Your task to perform on an android device: Open accessibility settings Image 0: 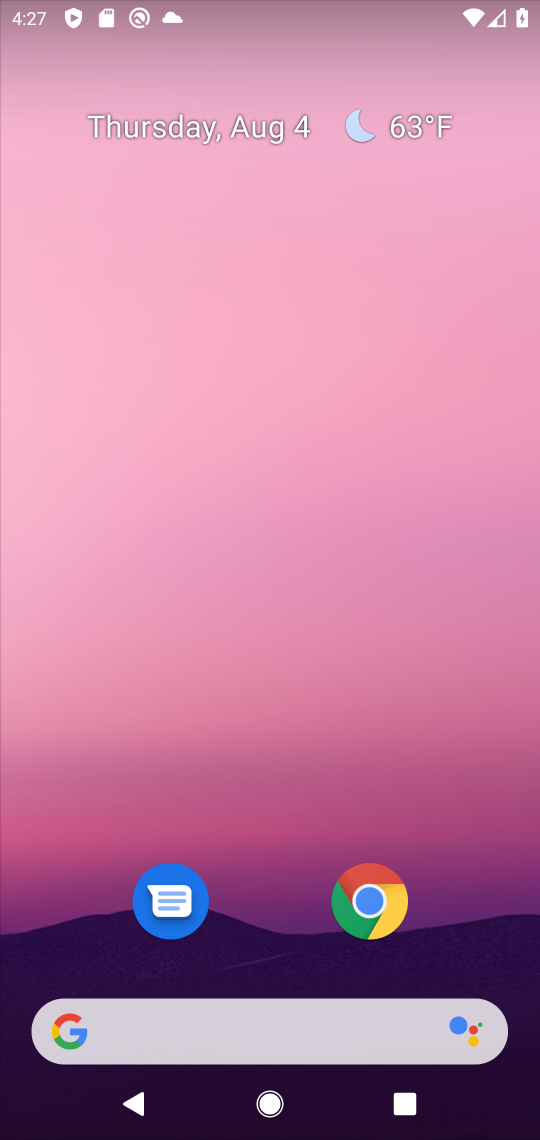
Step 0: drag from (290, 913) to (398, 50)
Your task to perform on an android device: Open accessibility settings Image 1: 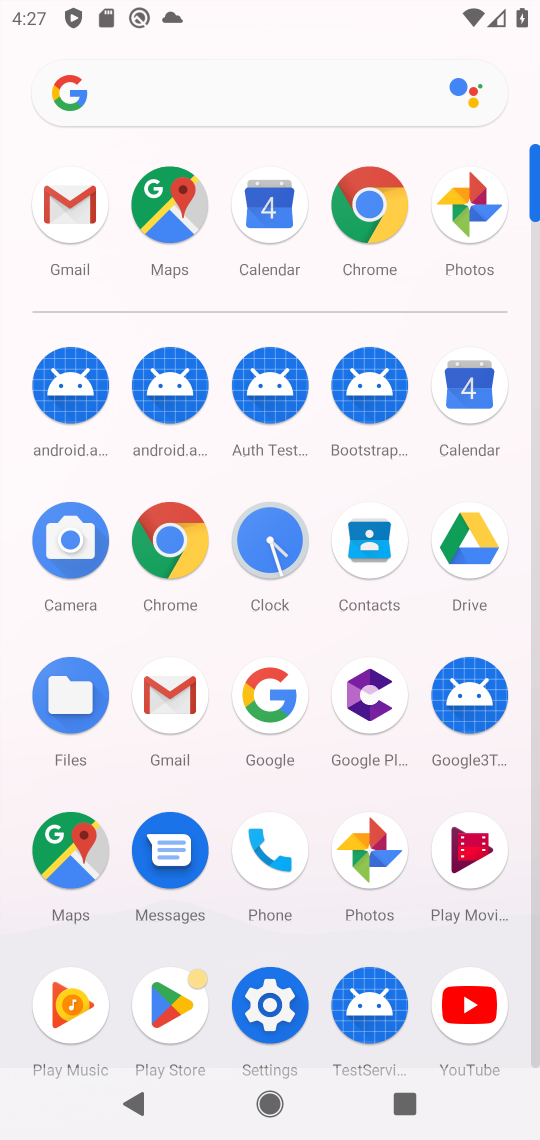
Step 1: click (261, 997)
Your task to perform on an android device: Open accessibility settings Image 2: 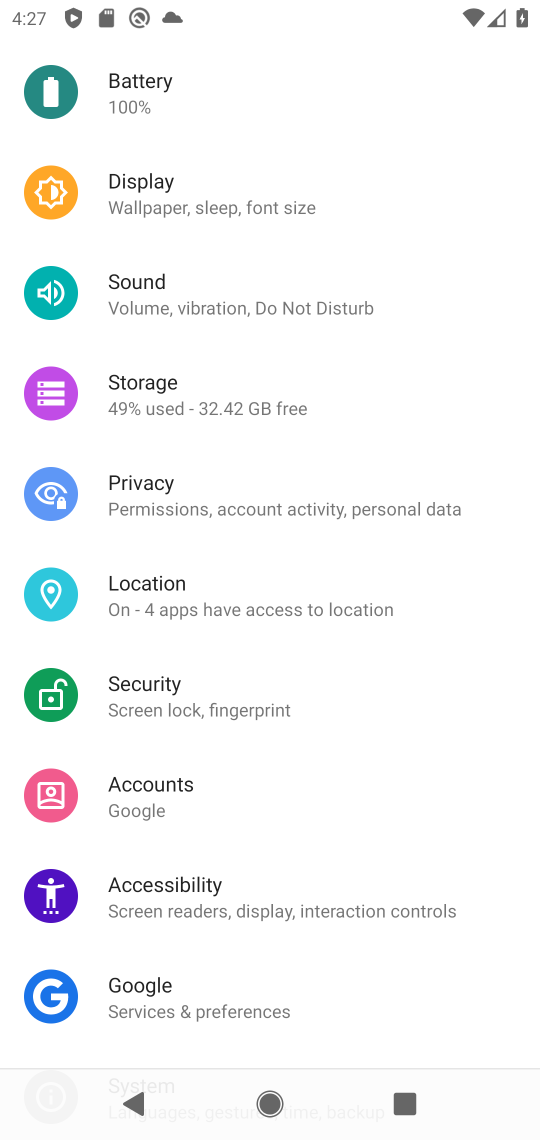
Step 2: click (478, 1108)
Your task to perform on an android device: Open accessibility settings Image 3: 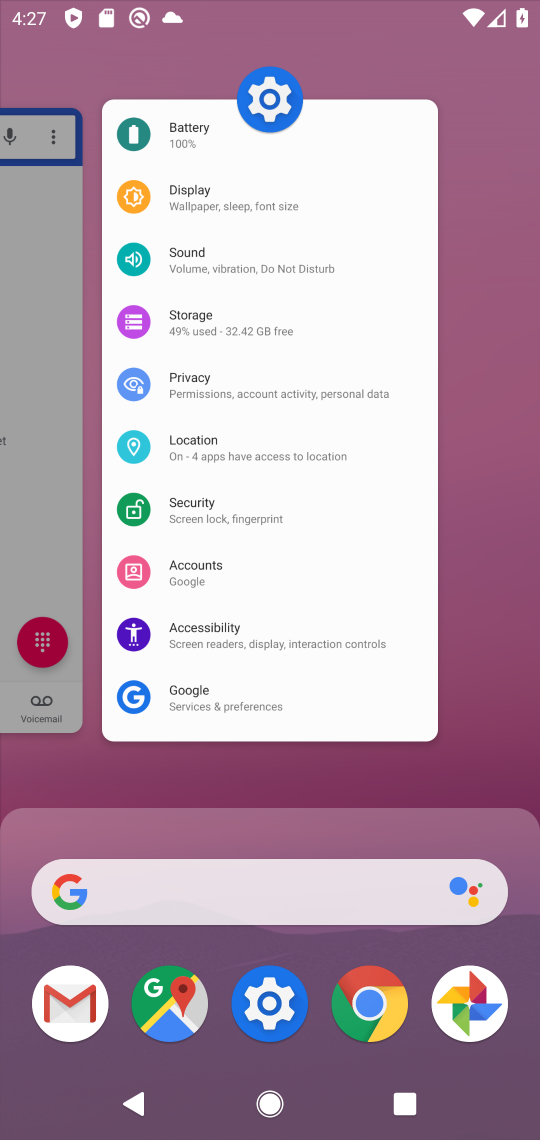
Step 3: click (136, 883)
Your task to perform on an android device: Open accessibility settings Image 4: 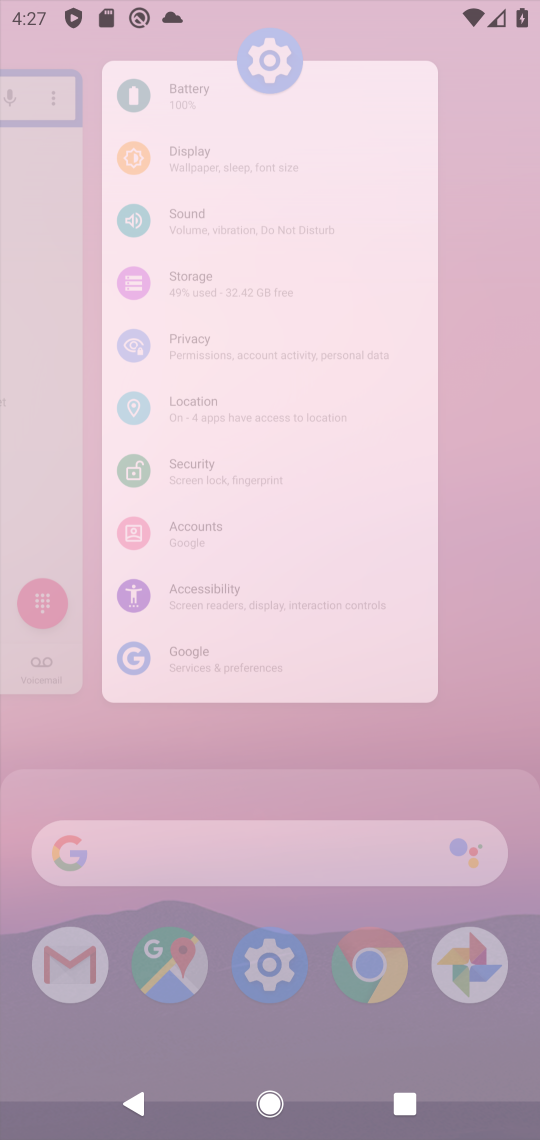
Step 4: click (293, 581)
Your task to perform on an android device: Open accessibility settings Image 5: 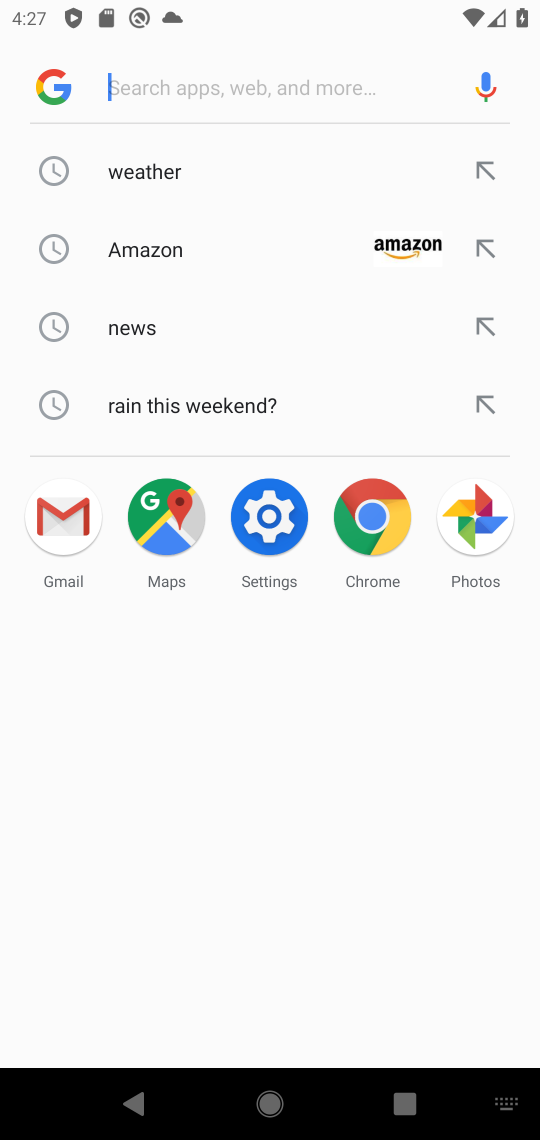
Step 5: press home button
Your task to perform on an android device: Open accessibility settings Image 6: 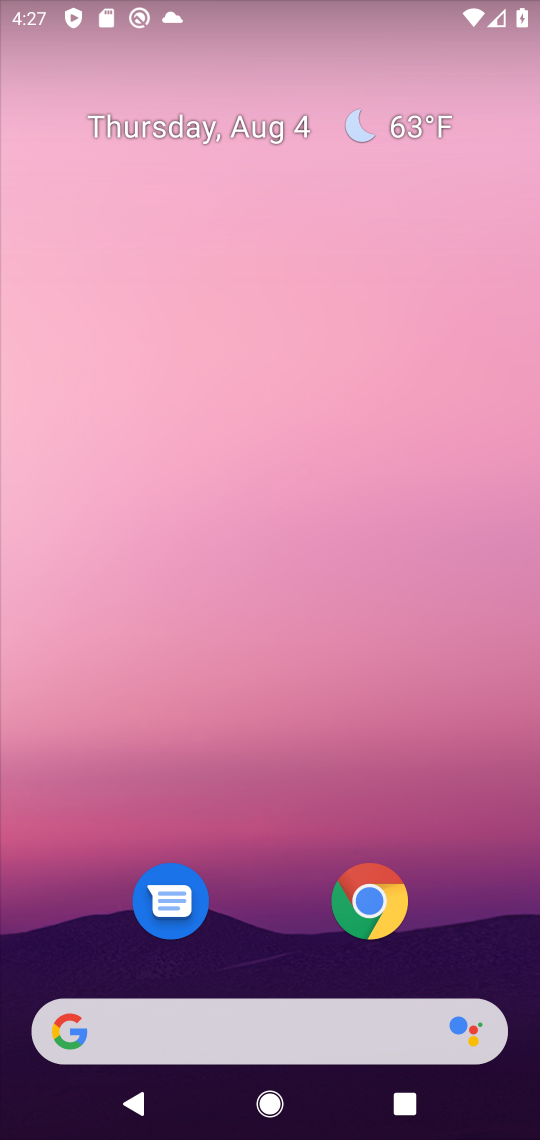
Step 6: drag from (296, 758) to (288, 47)
Your task to perform on an android device: Open accessibility settings Image 7: 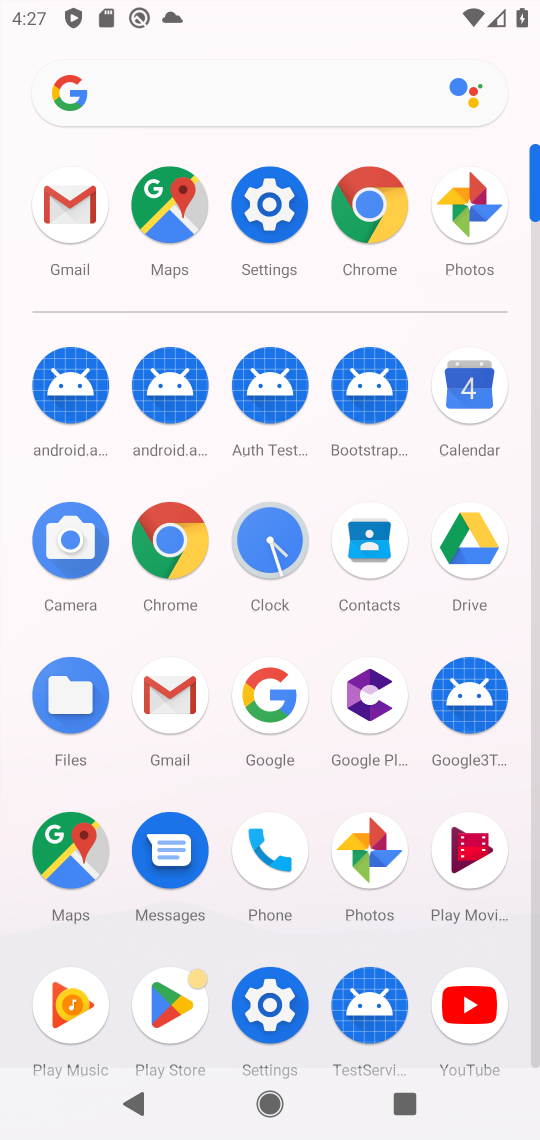
Step 7: click (267, 1003)
Your task to perform on an android device: Open accessibility settings Image 8: 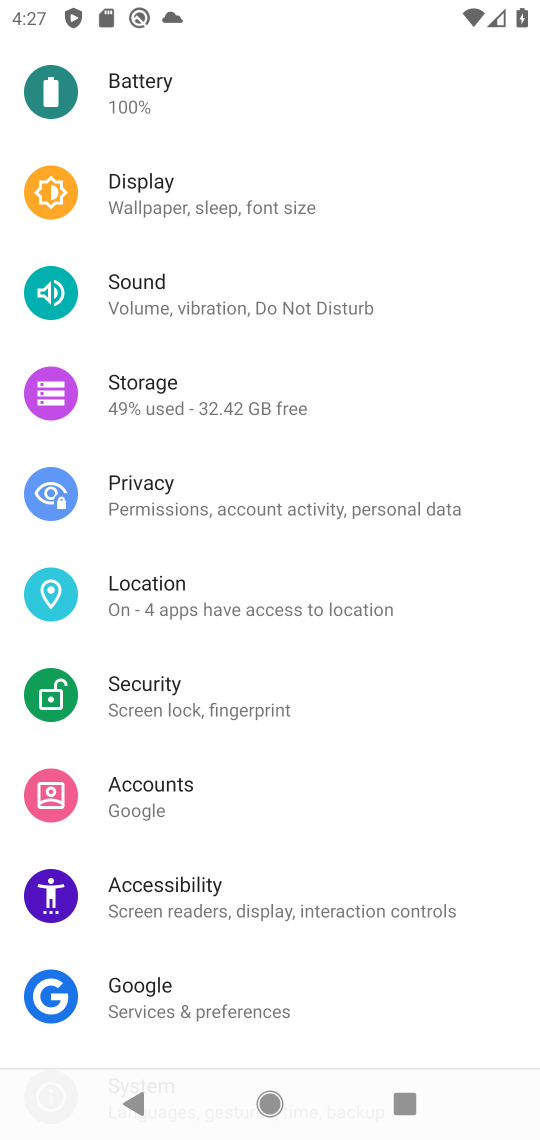
Step 8: click (131, 900)
Your task to perform on an android device: Open accessibility settings Image 9: 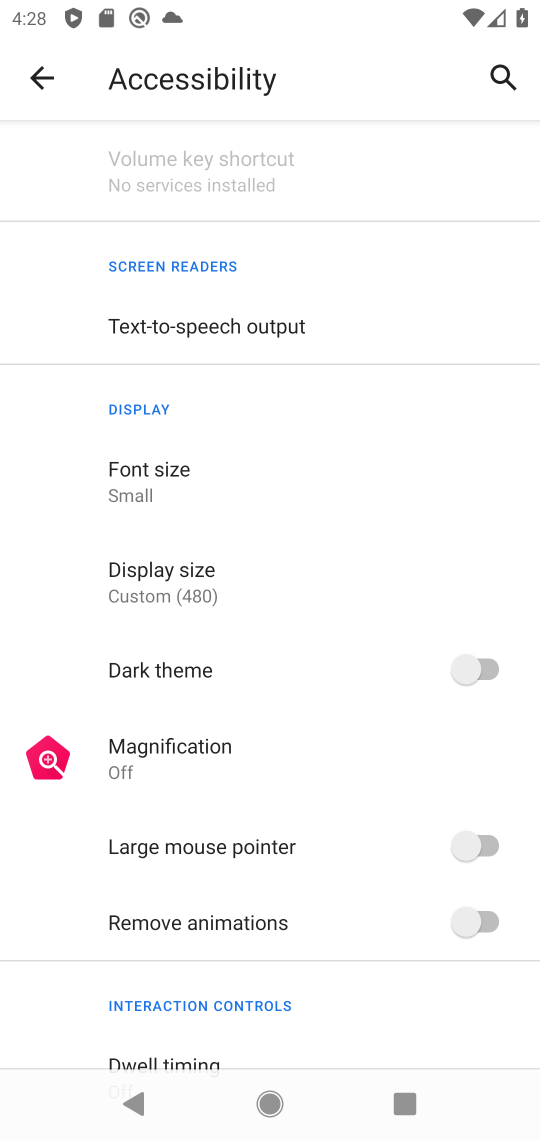
Step 9: task complete